Your task to perform on an android device: change the clock display to show seconds Image 0: 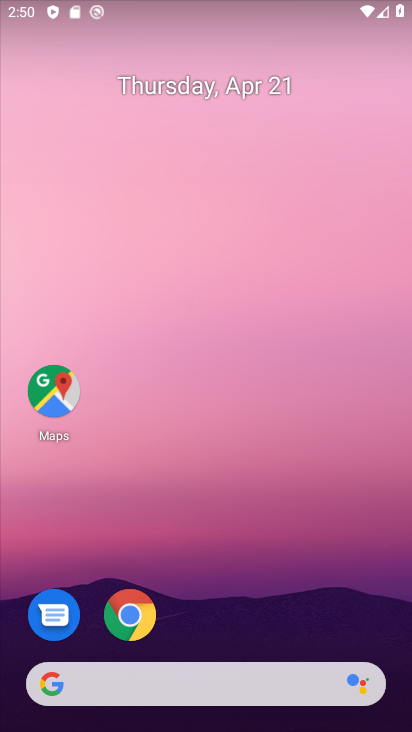
Step 0: drag from (363, 622) to (364, 223)
Your task to perform on an android device: change the clock display to show seconds Image 1: 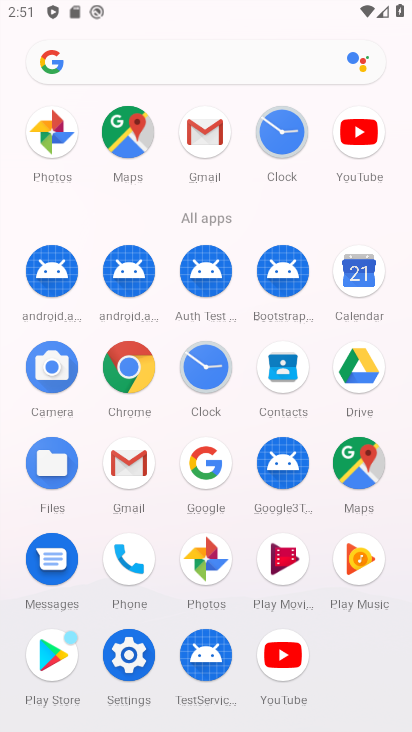
Step 1: click (191, 376)
Your task to perform on an android device: change the clock display to show seconds Image 2: 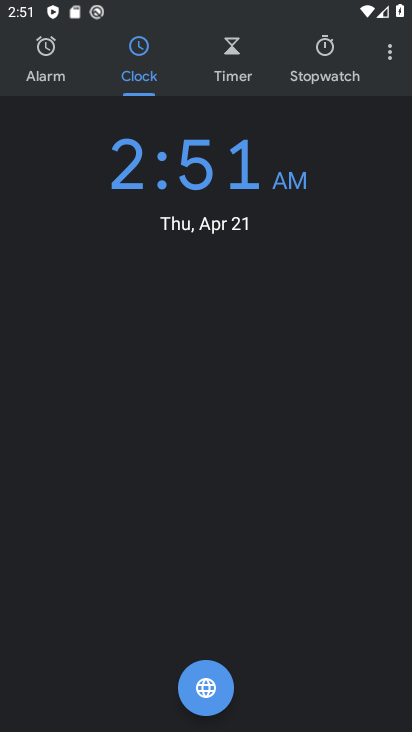
Step 2: click (391, 63)
Your task to perform on an android device: change the clock display to show seconds Image 3: 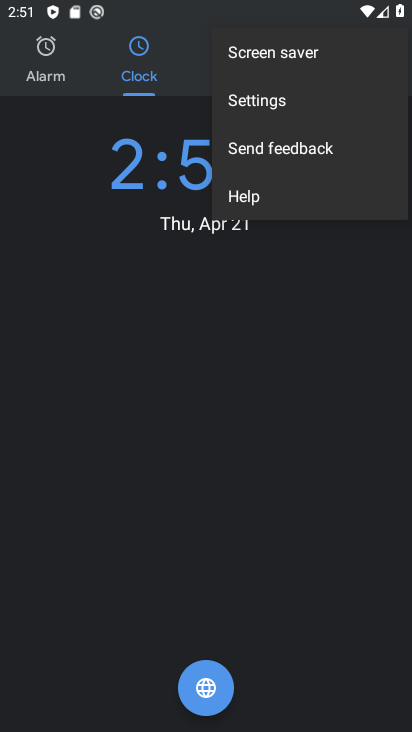
Step 3: click (287, 111)
Your task to perform on an android device: change the clock display to show seconds Image 4: 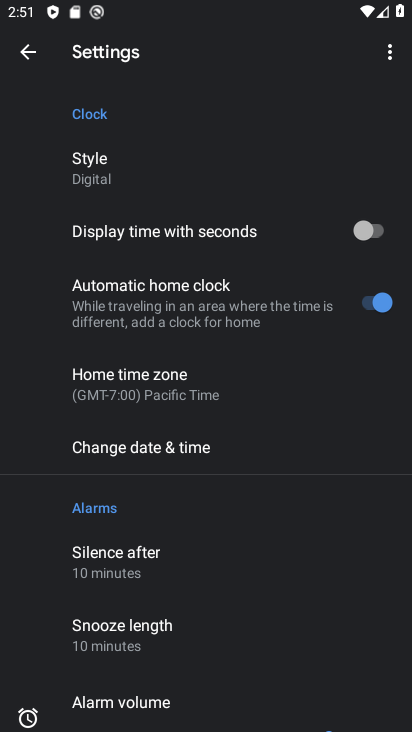
Step 4: click (381, 237)
Your task to perform on an android device: change the clock display to show seconds Image 5: 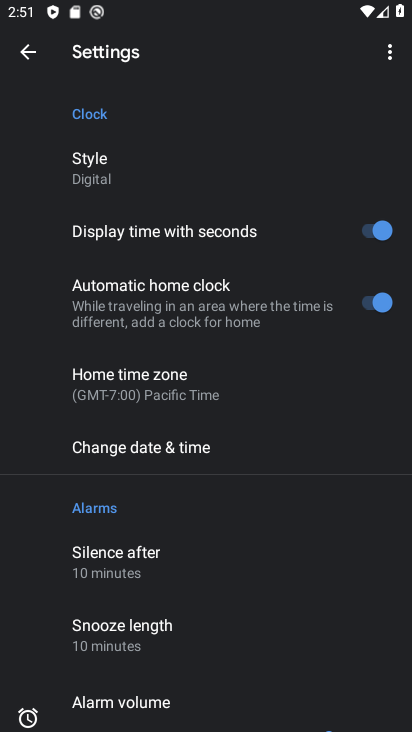
Step 5: task complete